Your task to perform on an android device: turn off location history Image 0: 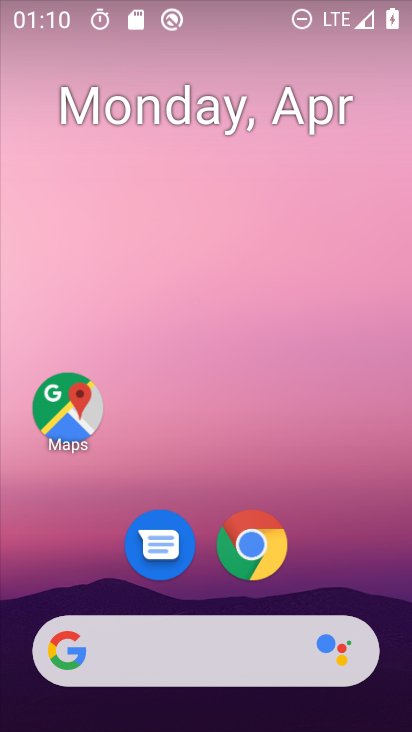
Step 0: click (359, 128)
Your task to perform on an android device: turn off location history Image 1: 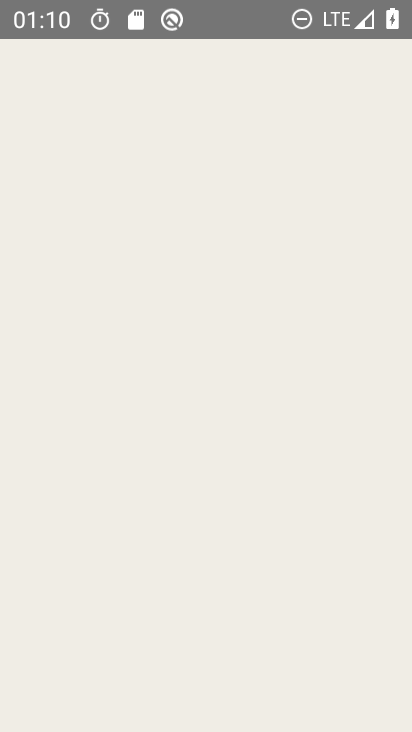
Step 1: press home button
Your task to perform on an android device: turn off location history Image 2: 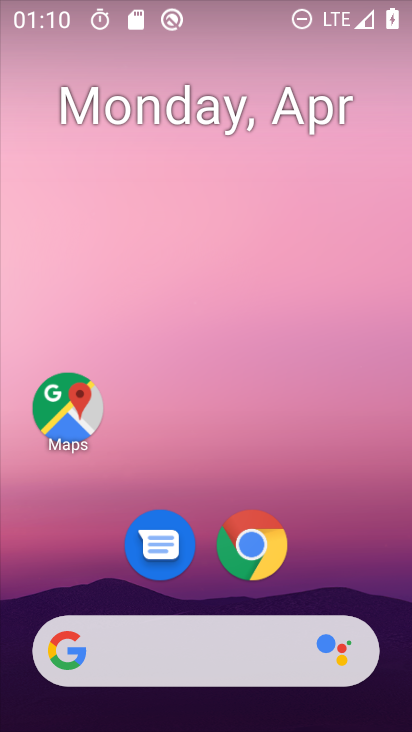
Step 2: drag from (307, 584) to (304, 144)
Your task to perform on an android device: turn off location history Image 3: 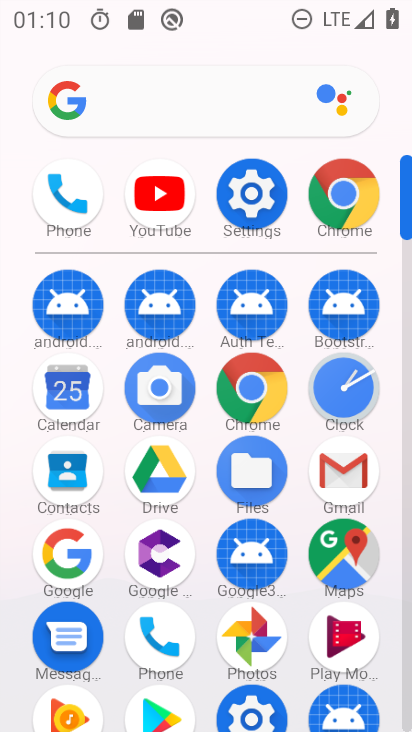
Step 3: click (254, 179)
Your task to perform on an android device: turn off location history Image 4: 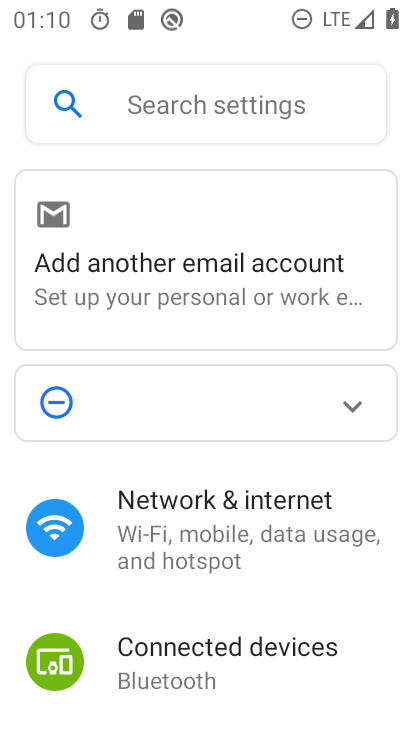
Step 4: drag from (288, 588) to (349, 196)
Your task to perform on an android device: turn off location history Image 5: 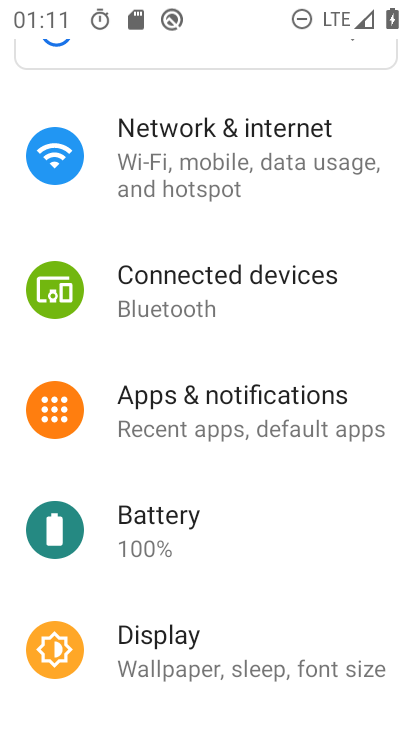
Step 5: drag from (213, 601) to (299, 228)
Your task to perform on an android device: turn off location history Image 6: 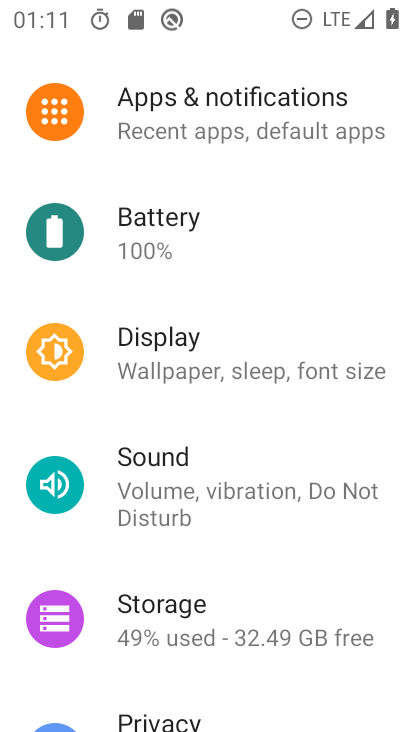
Step 6: drag from (250, 634) to (289, 144)
Your task to perform on an android device: turn off location history Image 7: 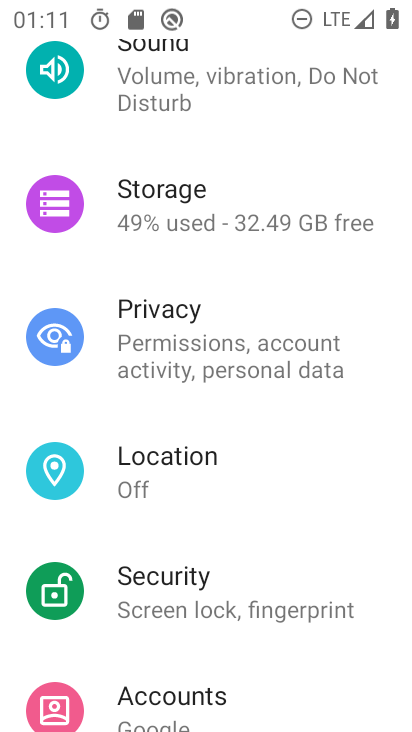
Step 7: click (194, 460)
Your task to perform on an android device: turn off location history Image 8: 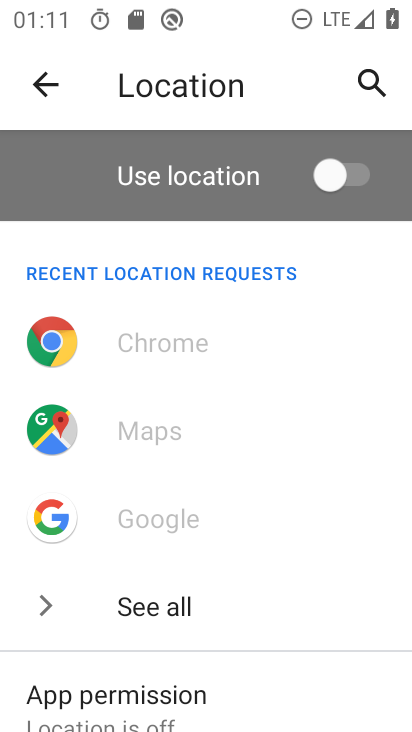
Step 8: drag from (290, 636) to (331, 240)
Your task to perform on an android device: turn off location history Image 9: 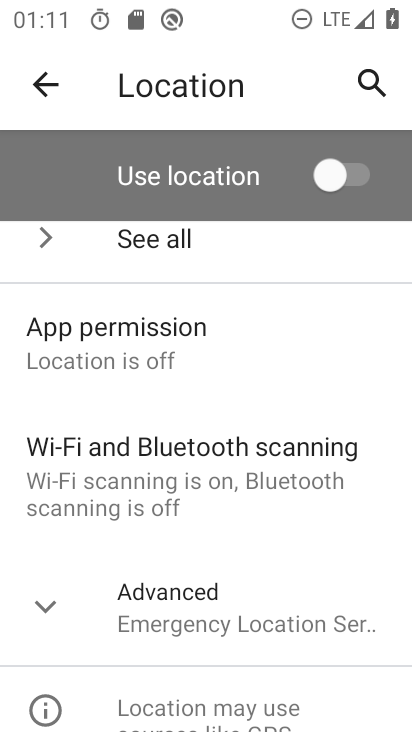
Step 9: drag from (254, 507) to (282, 221)
Your task to perform on an android device: turn off location history Image 10: 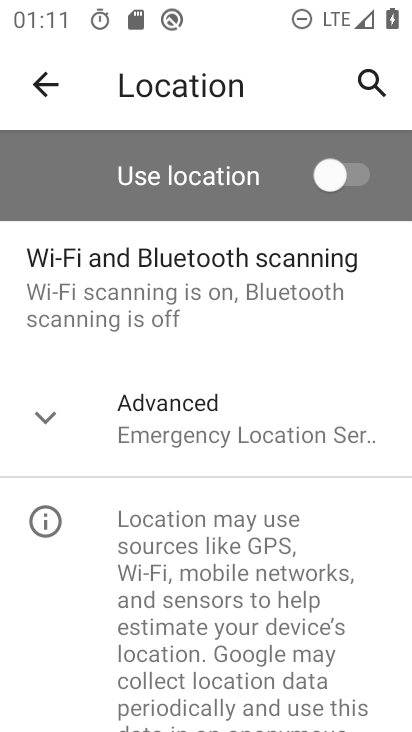
Step 10: click (284, 612)
Your task to perform on an android device: turn off location history Image 11: 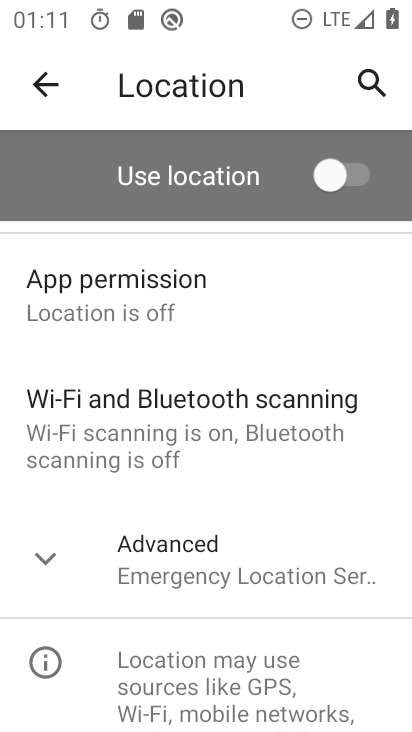
Step 11: click (38, 81)
Your task to perform on an android device: turn off location history Image 12: 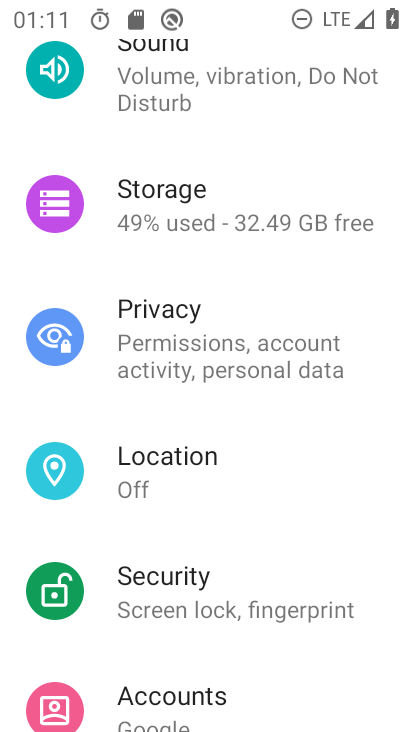
Step 12: click (204, 479)
Your task to perform on an android device: turn off location history Image 13: 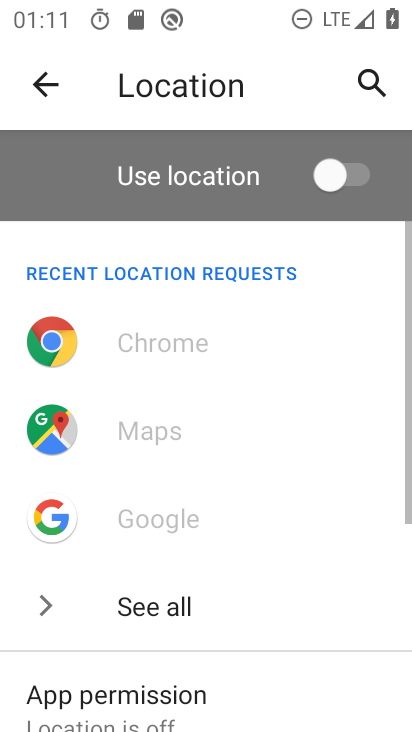
Step 13: drag from (231, 628) to (251, 254)
Your task to perform on an android device: turn off location history Image 14: 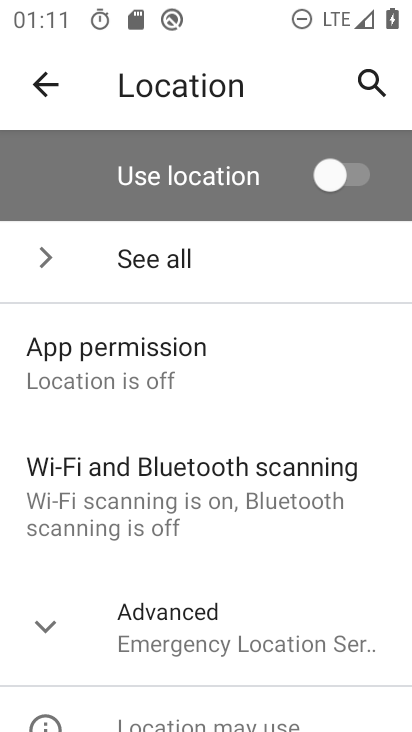
Step 14: click (171, 641)
Your task to perform on an android device: turn off location history Image 15: 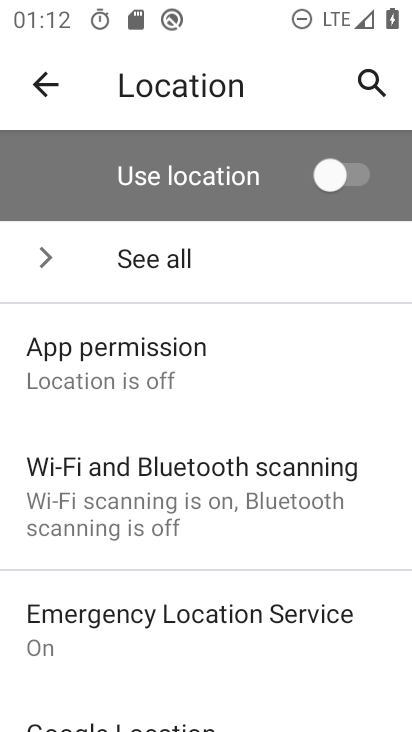
Step 15: drag from (211, 595) to (253, 290)
Your task to perform on an android device: turn off location history Image 16: 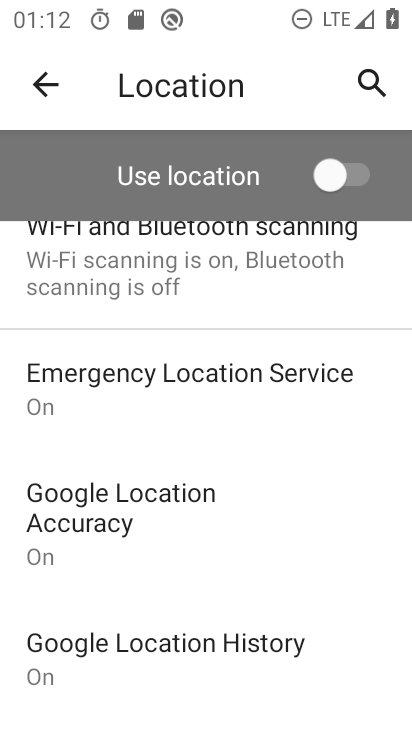
Step 16: click (169, 647)
Your task to perform on an android device: turn off location history Image 17: 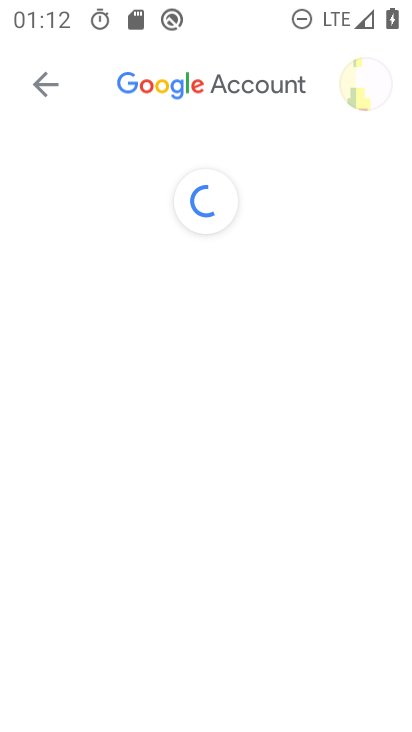
Step 17: drag from (269, 635) to (296, 213)
Your task to perform on an android device: turn off location history Image 18: 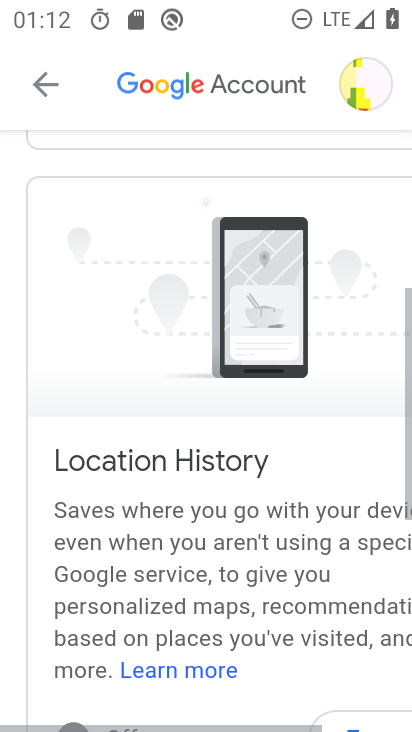
Step 18: drag from (268, 579) to (287, 140)
Your task to perform on an android device: turn off location history Image 19: 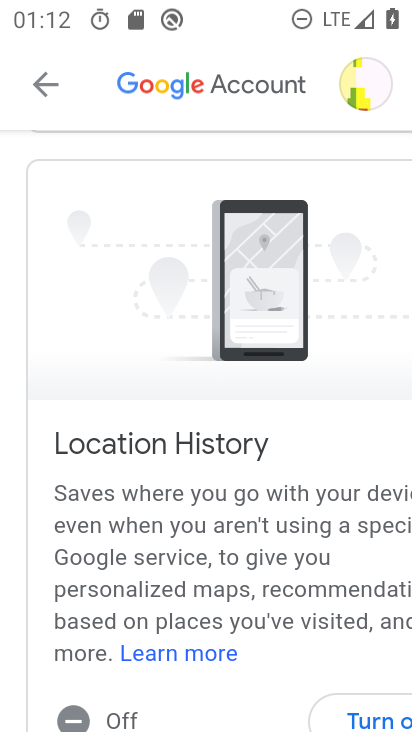
Step 19: click (371, 713)
Your task to perform on an android device: turn off location history Image 20: 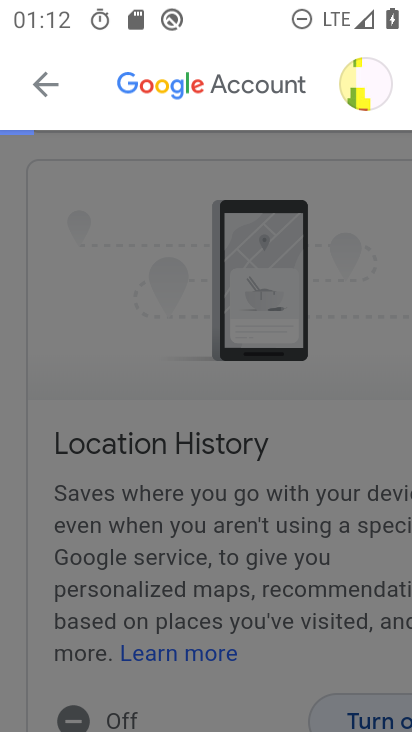
Step 20: click (87, 718)
Your task to perform on an android device: turn off location history Image 21: 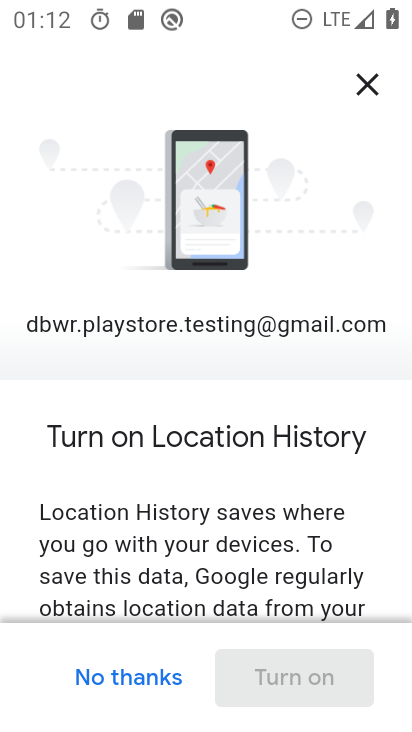
Step 21: click (114, 667)
Your task to perform on an android device: turn off location history Image 22: 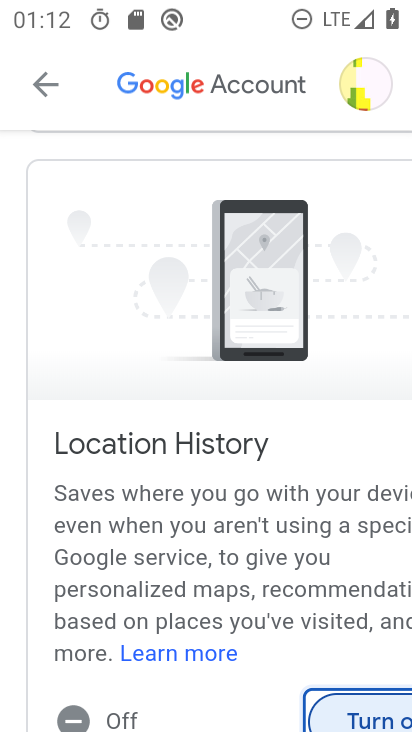
Step 22: task complete